Your task to perform on an android device: Go to network settings Image 0: 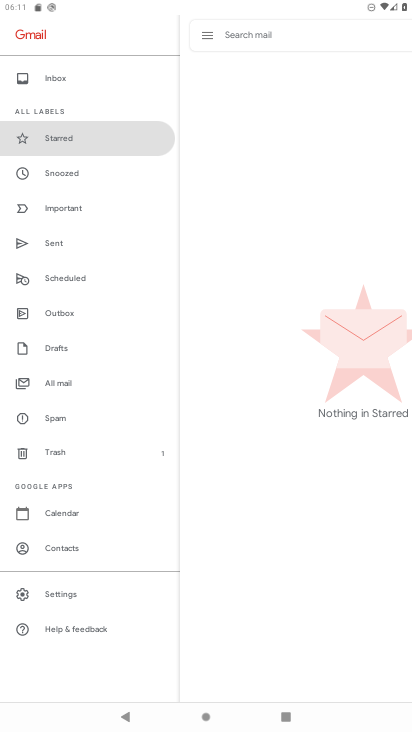
Step 0: press home button
Your task to perform on an android device: Go to network settings Image 1: 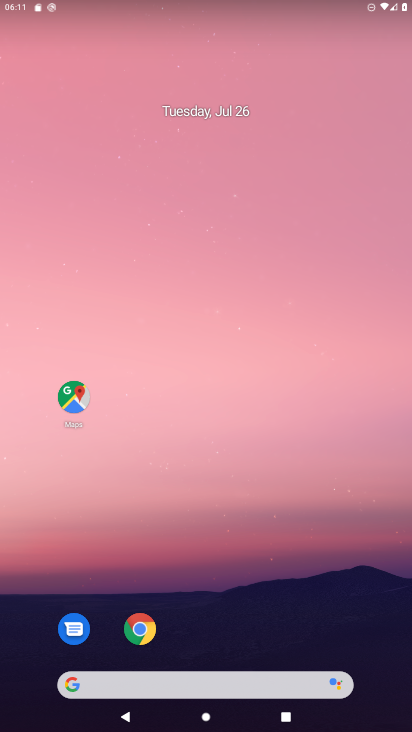
Step 1: drag from (187, 635) to (215, 152)
Your task to perform on an android device: Go to network settings Image 2: 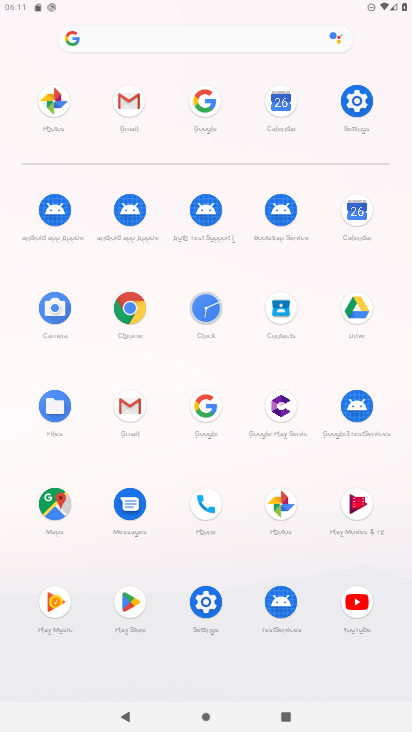
Step 2: click (349, 100)
Your task to perform on an android device: Go to network settings Image 3: 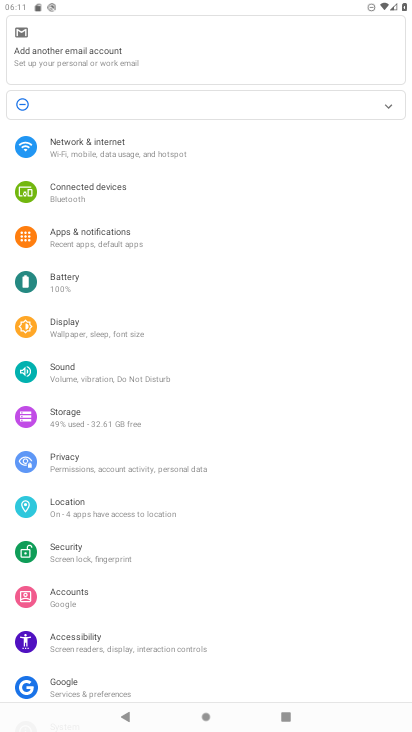
Step 3: click (101, 146)
Your task to perform on an android device: Go to network settings Image 4: 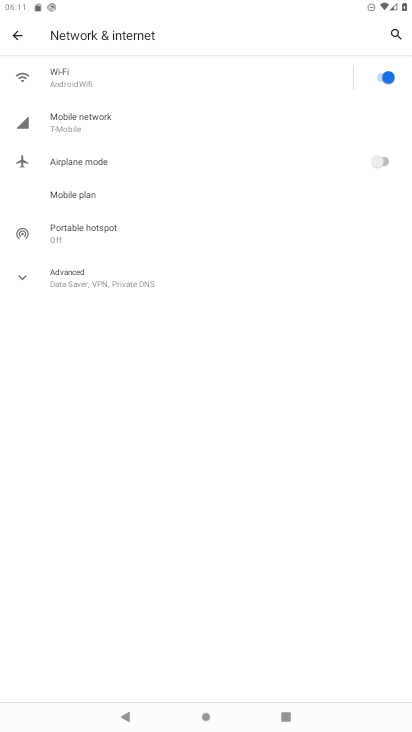
Step 4: task complete